Your task to perform on an android device: set the timer Image 0: 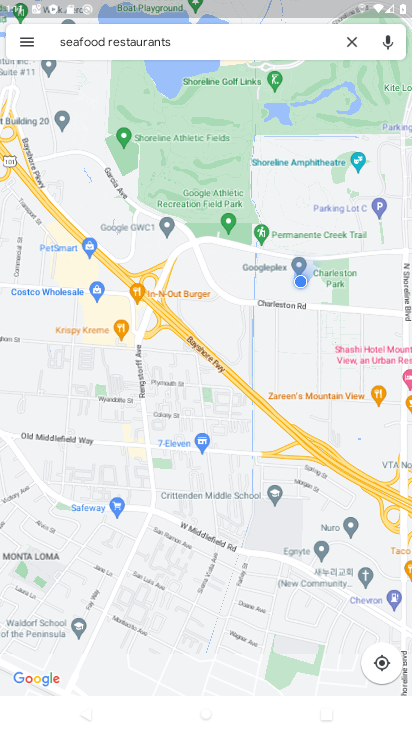
Step 0: press home button
Your task to perform on an android device: set the timer Image 1: 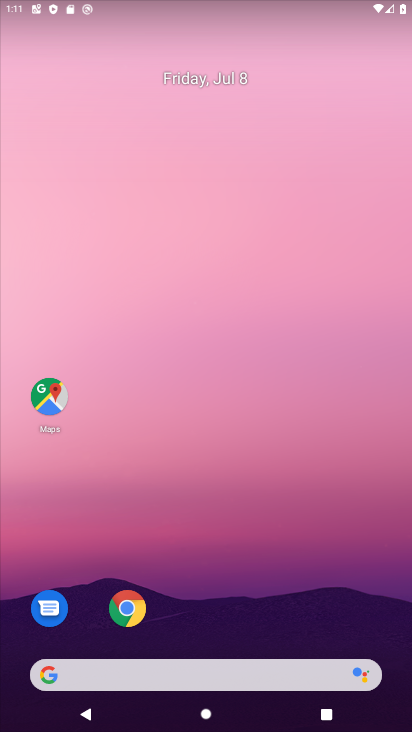
Step 1: drag from (335, 629) to (312, 79)
Your task to perform on an android device: set the timer Image 2: 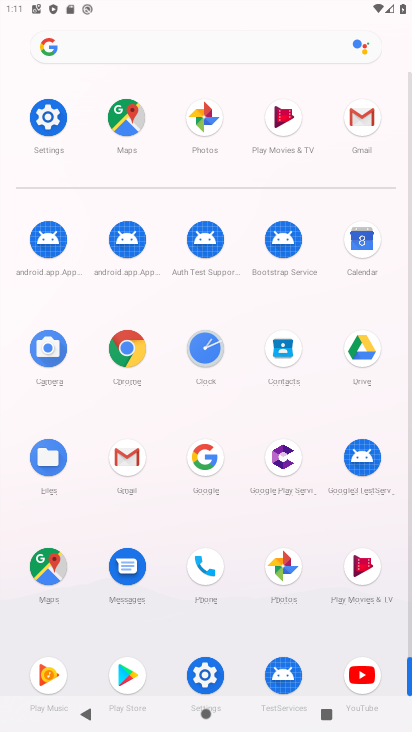
Step 2: click (204, 350)
Your task to perform on an android device: set the timer Image 3: 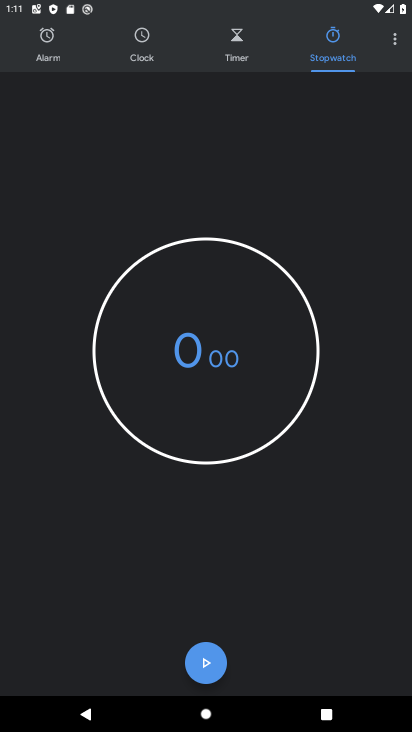
Step 3: click (244, 39)
Your task to perform on an android device: set the timer Image 4: 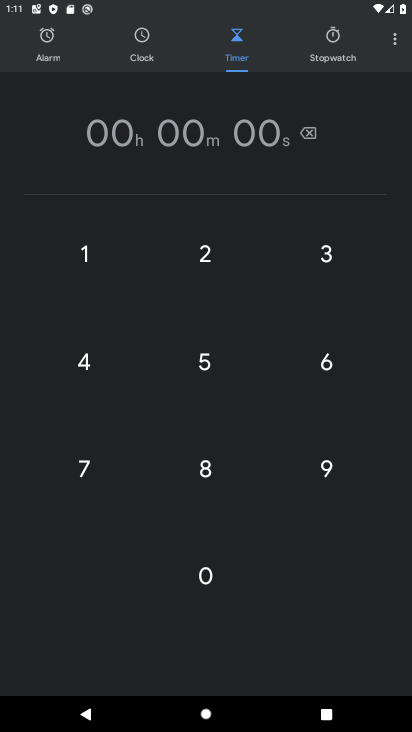
Step 4: click (81, 250)
Your task to perform on an android device: set the timer Image 5: 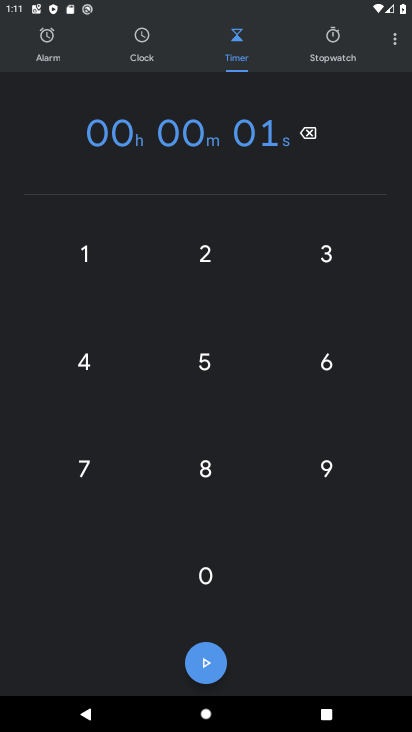
Step 5: click (325, 255)
Your task to perform on an android device: set the timer Image 6: 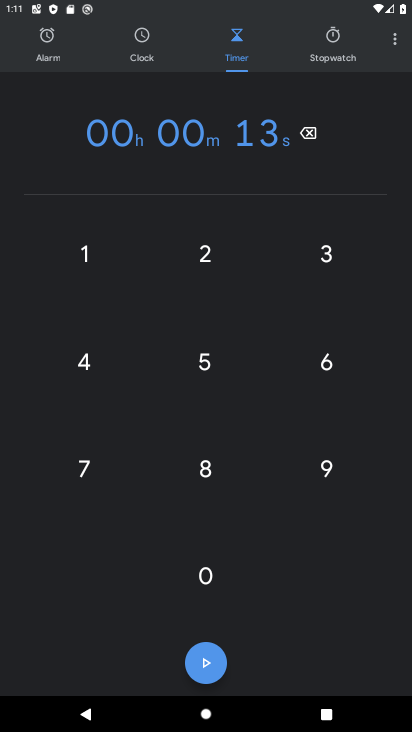
Step 6: click (203, 578)
Your task to perform on an android device: set the timer Image 7: 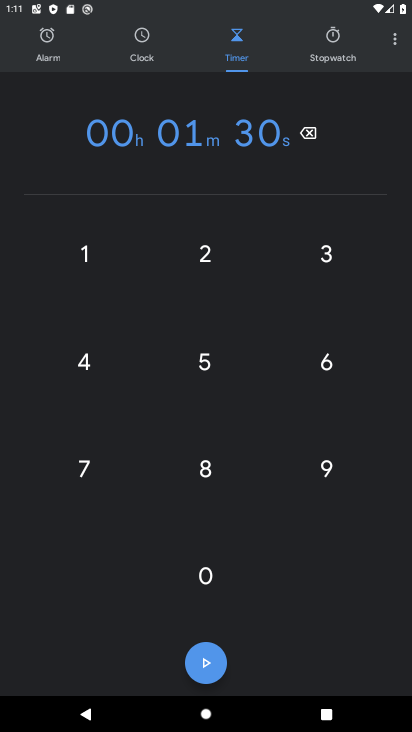
Step 7: click (203, 578)
Your task to perform on an android device: set the timer Image 8: 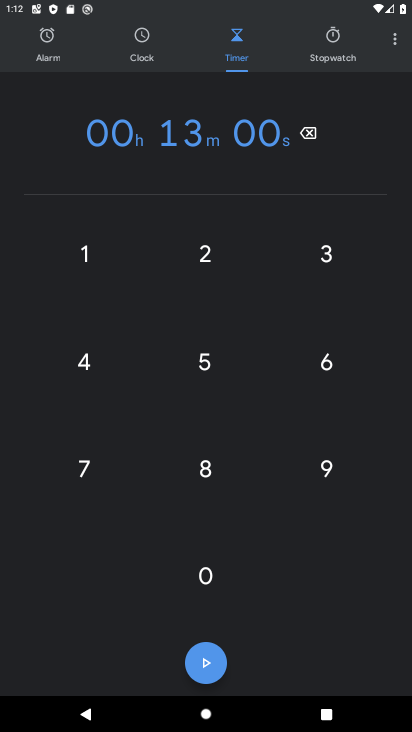
Step 8: click (209, 580)
Your task to perform on an android device: set the timer Image 9: 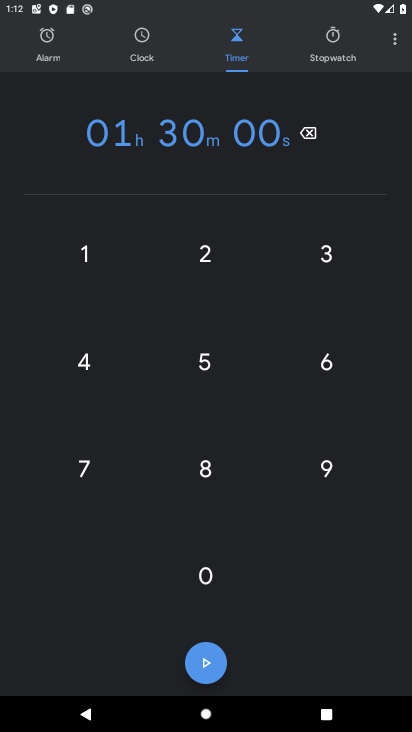
Step 9: task complete